Your task to perform on an android device: uninstall "Google Home" Image 0: 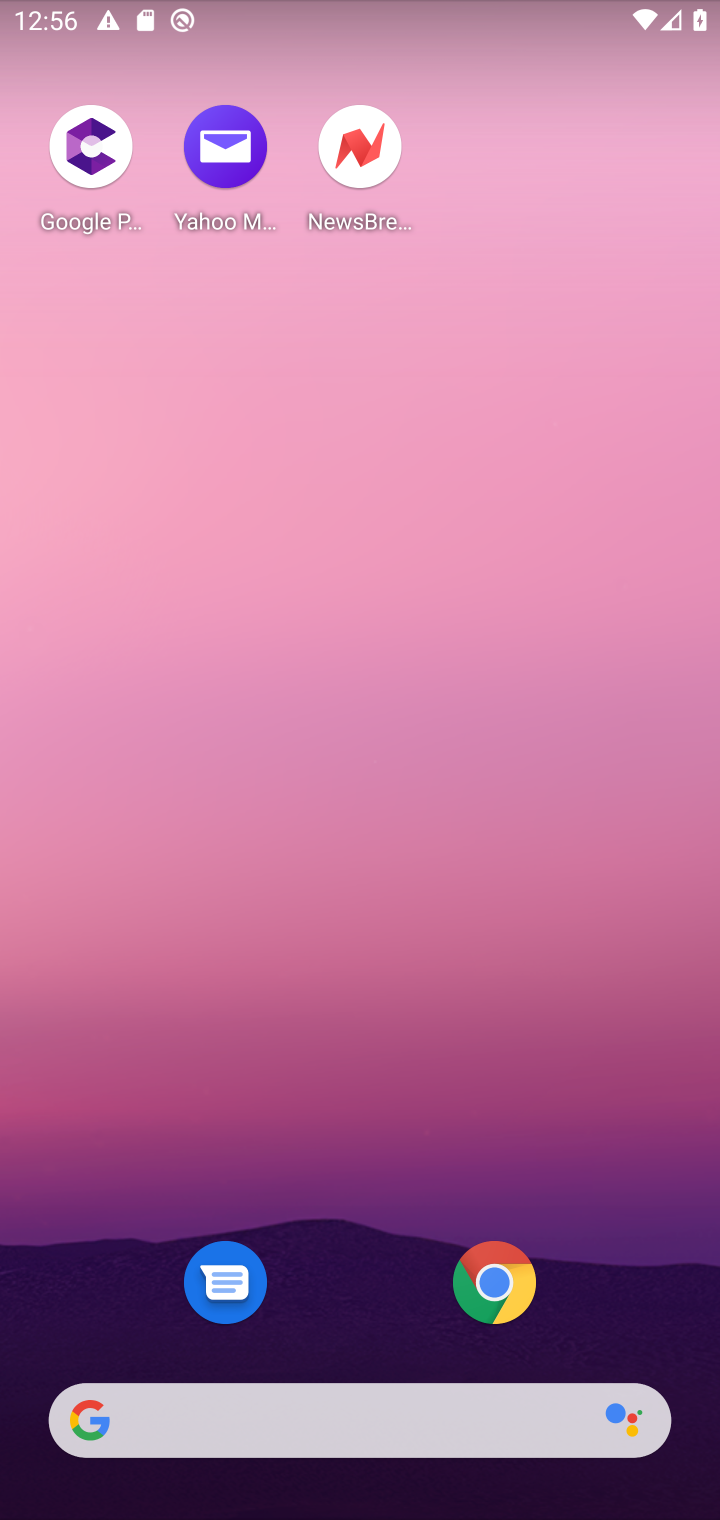
Step 0: drag from (490, 1377) to (462, 72)
Your task to perform on an android device: uninstall "Google Home" Image 1: 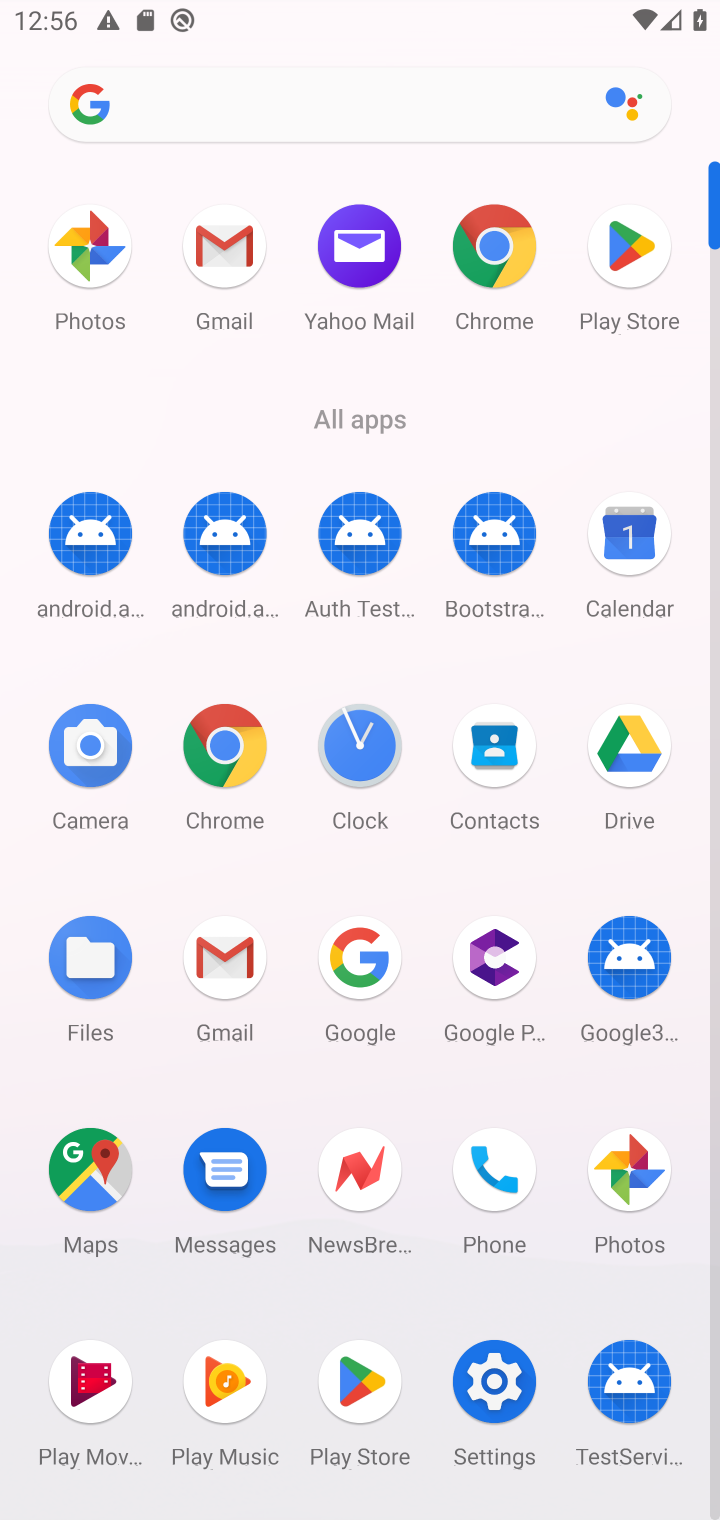
Step 1: click (356, 1392)
Your task to perform on an android device: uninstall "Google Home" Image 2: 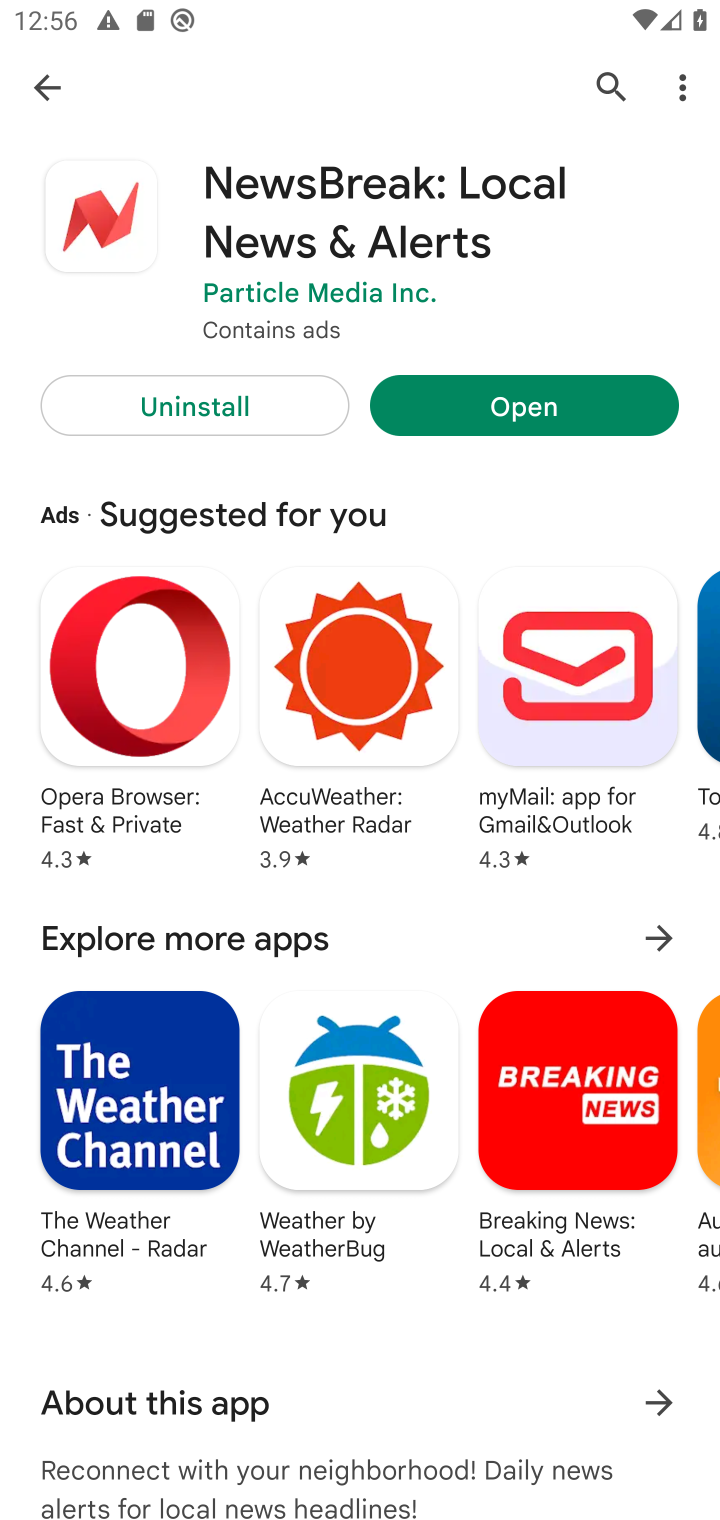
Step 2: click (51, 76)
Your task to perform on an android device: uninstall "Google Home" Image 3: 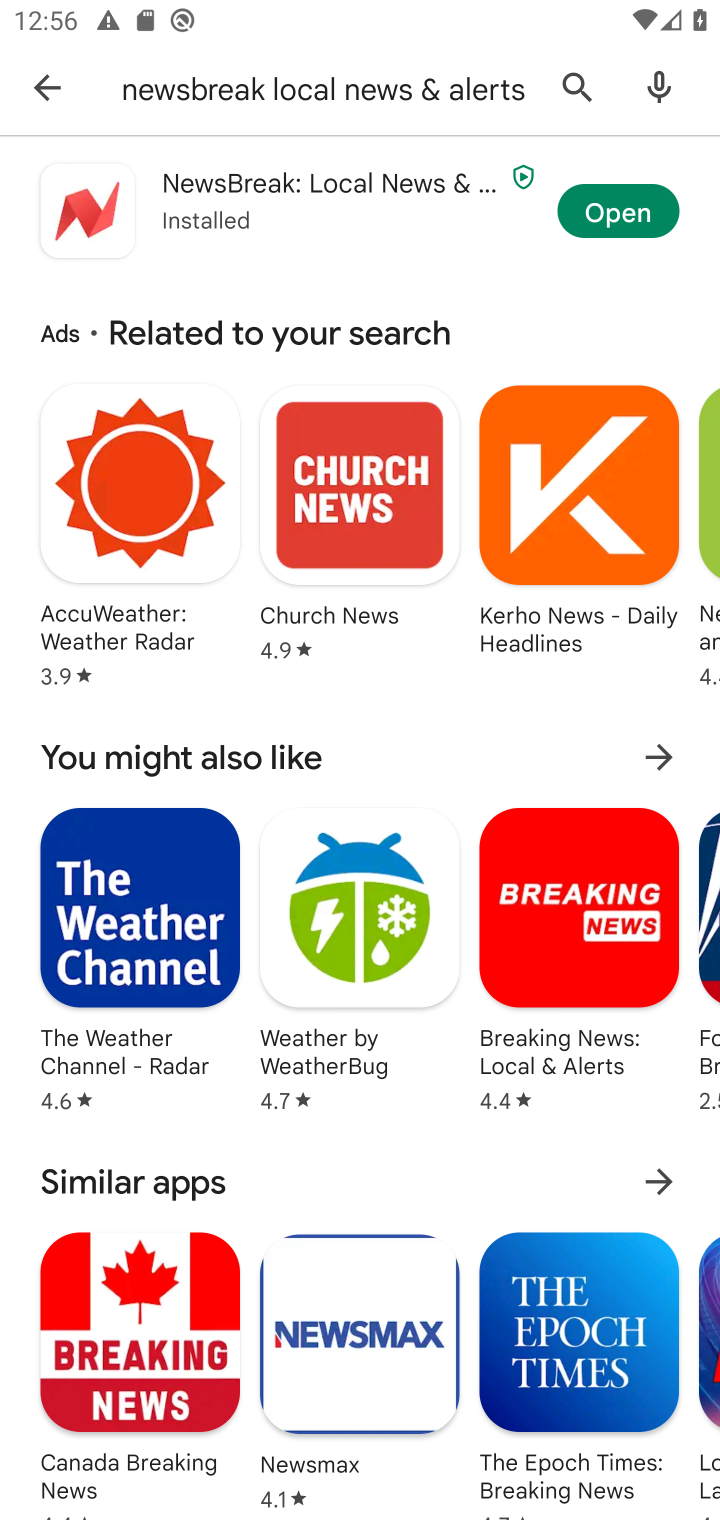
Step 3: click (43, 80)
Your task to perform on an android device: uninstall "Google Home" Image 4: 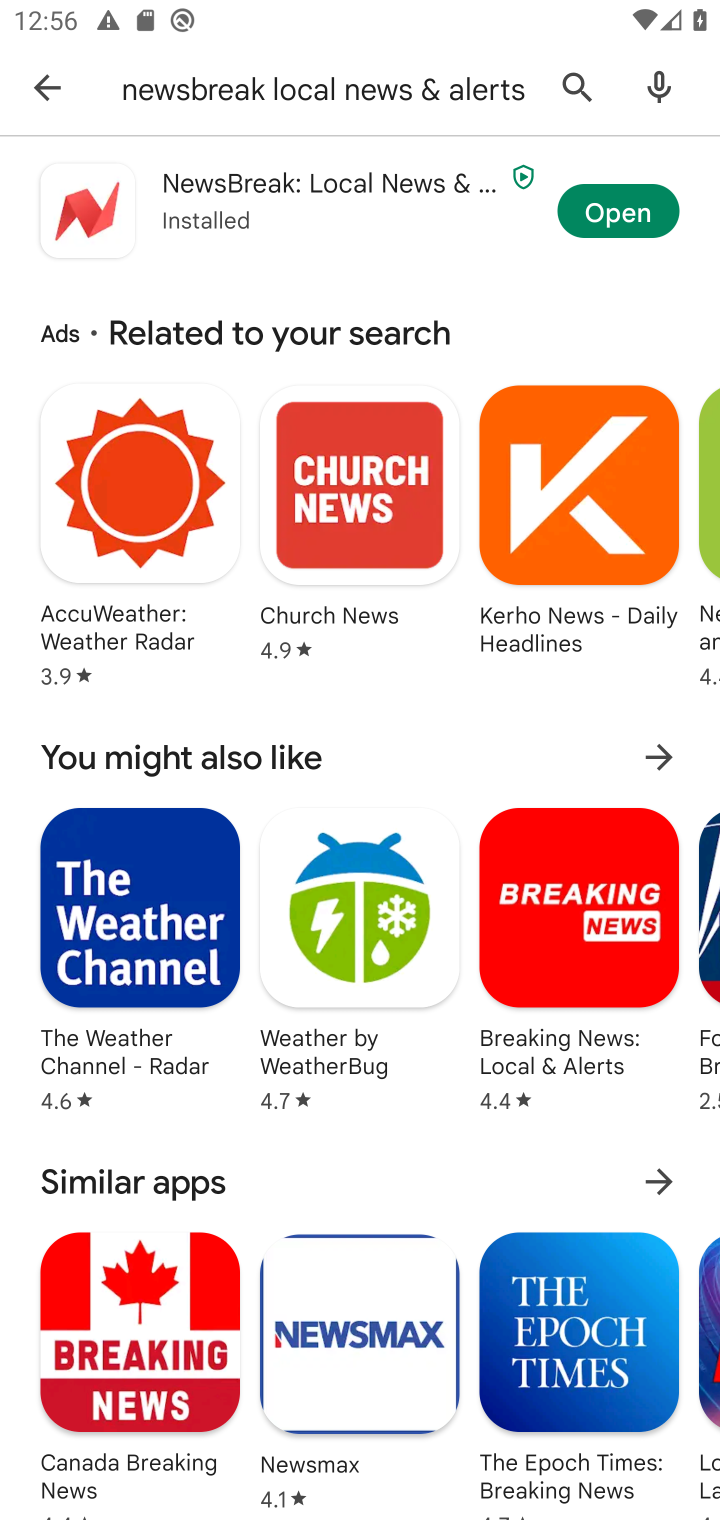
Step 4: click (586, 84)
Your task to perform on an android device: uninstall "Google Home" Image 5: 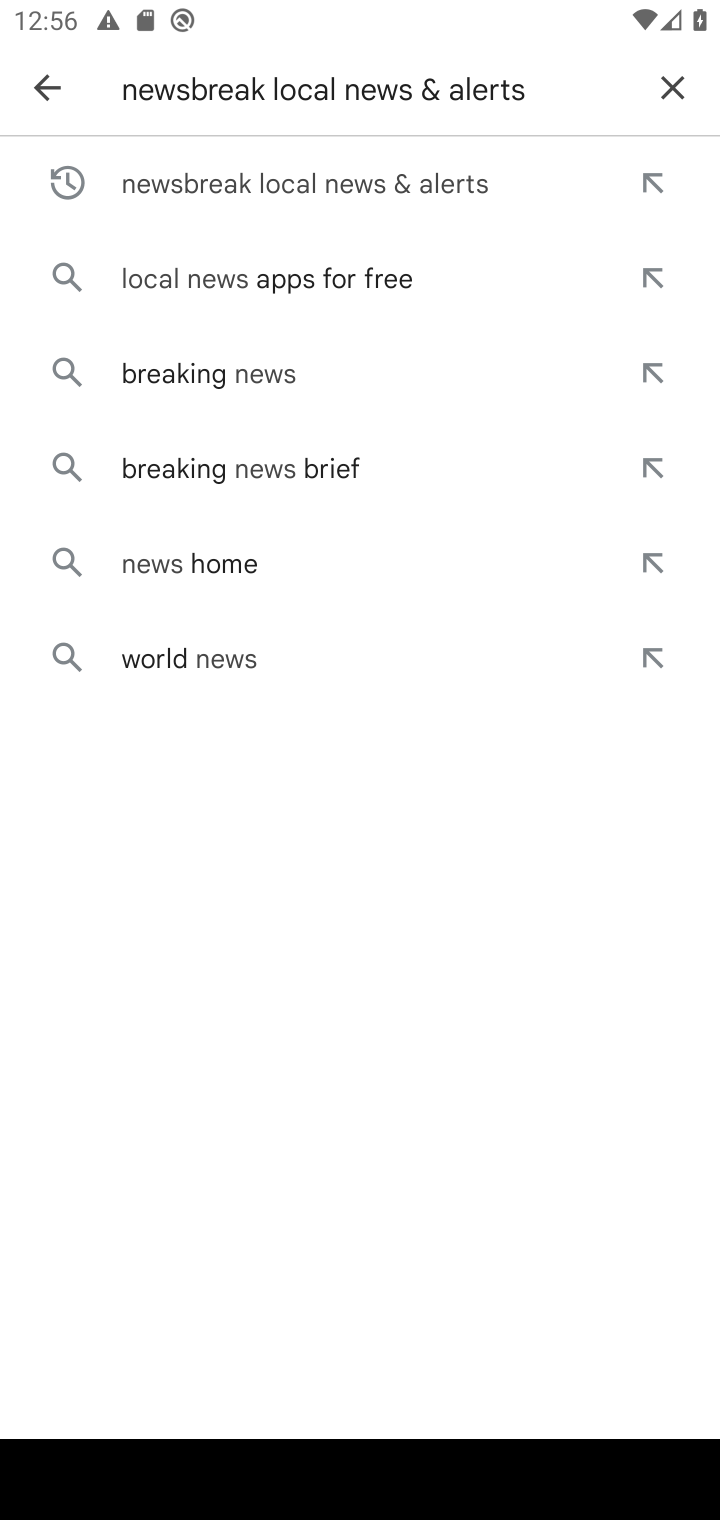
Step 5: click (666, 83)
Your task to perform on an android device: uninstall "Google Home" Image 6: 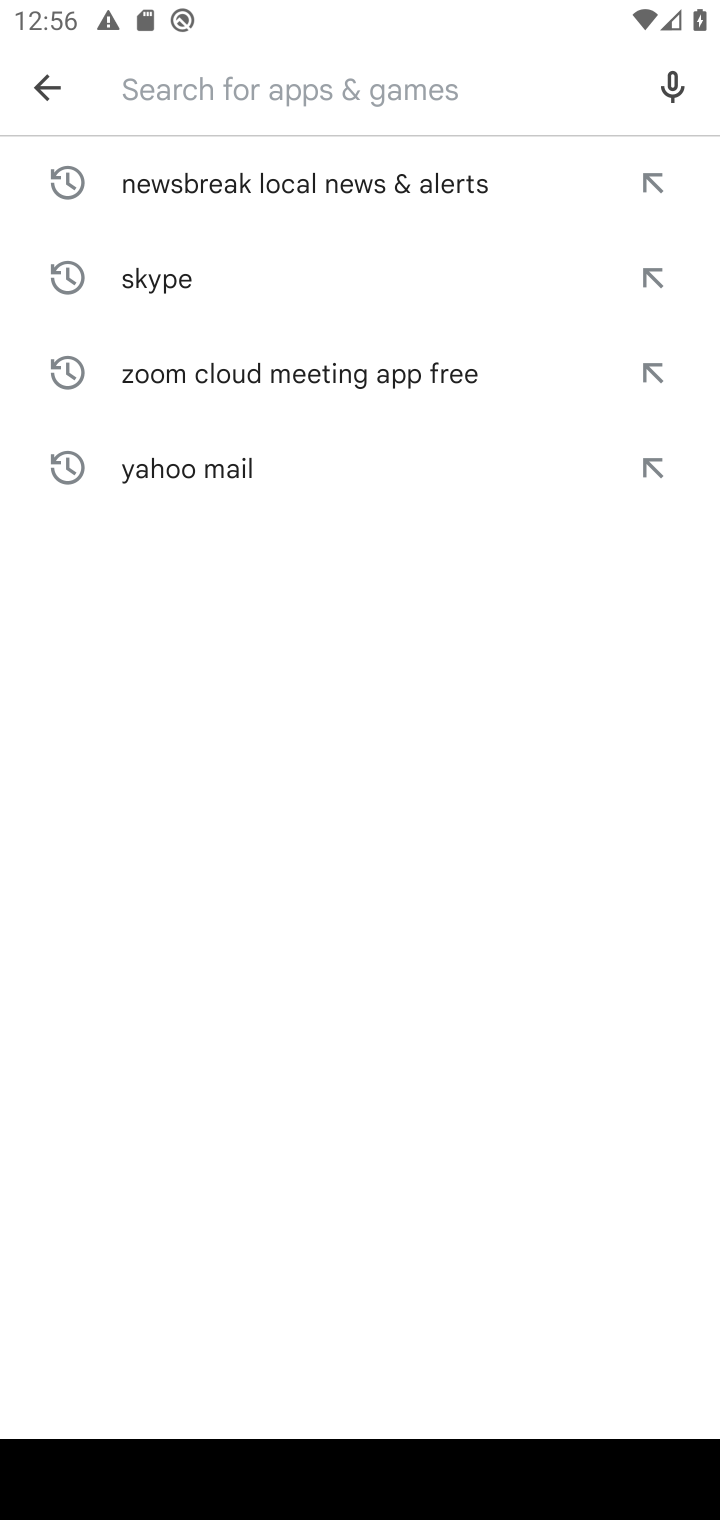
Step 6: type "Google Home"
Your task to perform on an android device: uninstall "Google Home" Image 7: 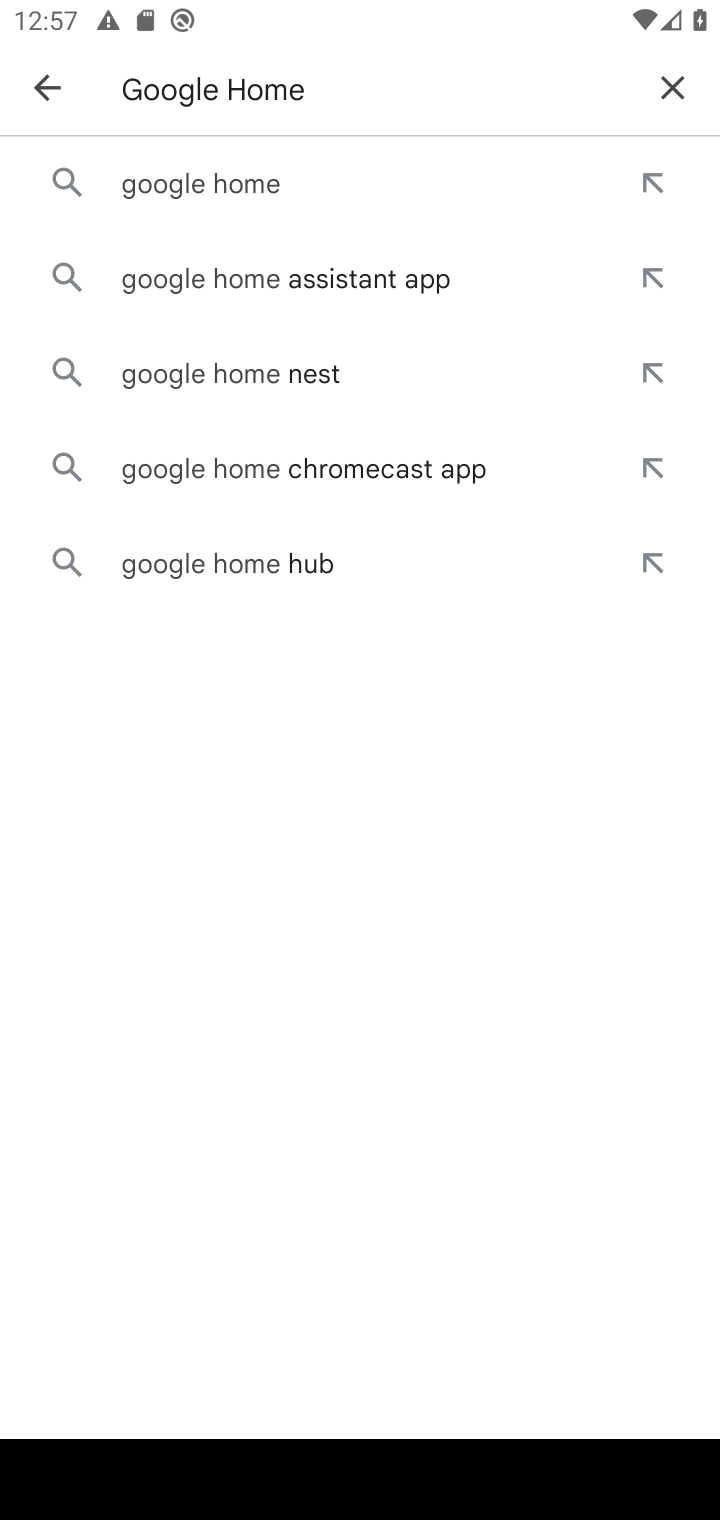
Step 7: click (215, 173)
Your task to perform on an android device: uninstall "Google Home" Image 8: 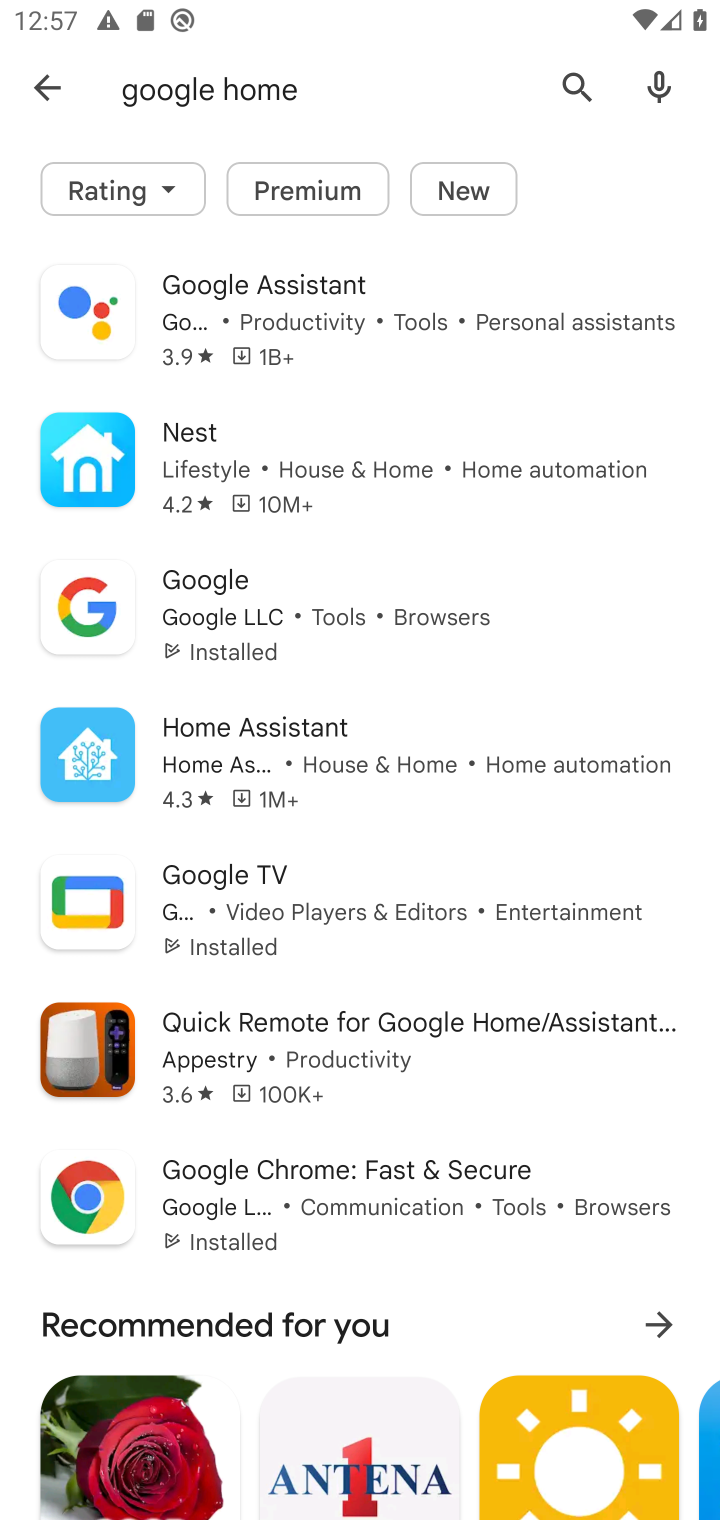
Step 8: task complete